Your task to perform on an android device: Open the calendar and show me this week's events? Image 0: 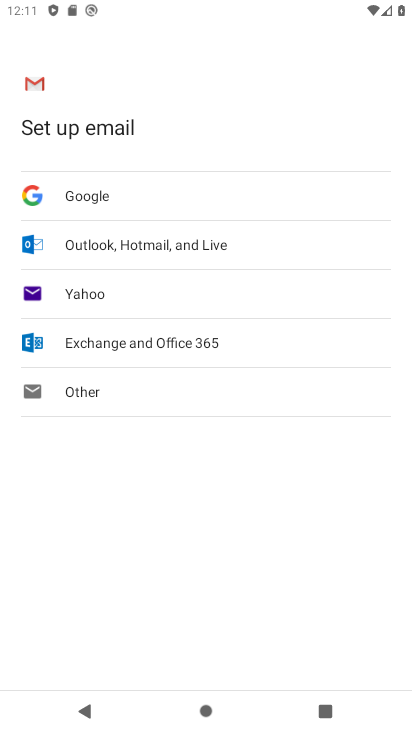
Step 0: press home button
Your task to perform on an android device: Open the calendar and show me this week's events? Image 1: 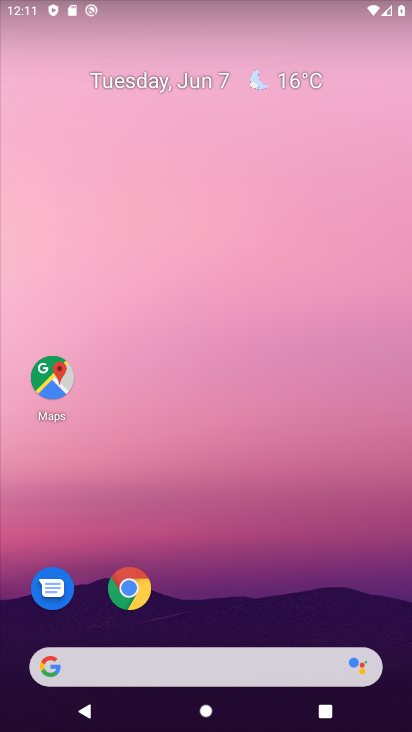
Step 1: drag from (340, 594) to (239, 165)
Your task to perform on an android device: Open the calendar and show me this week's events? Image 2: 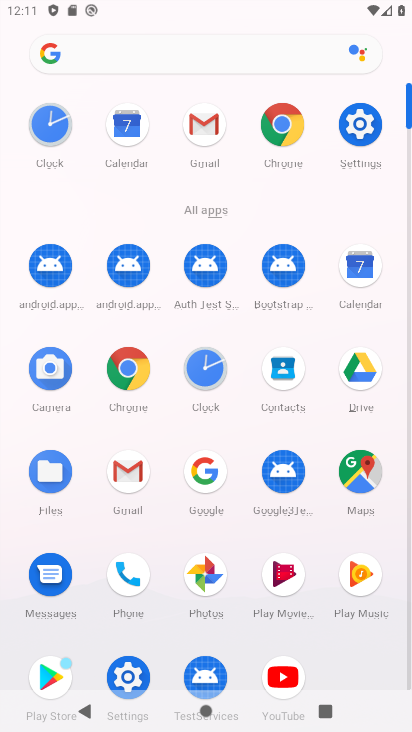
Step 2: click (375, 276)
Your task to perform on an android device: Open the calendar and show me this week's events? Image 3: 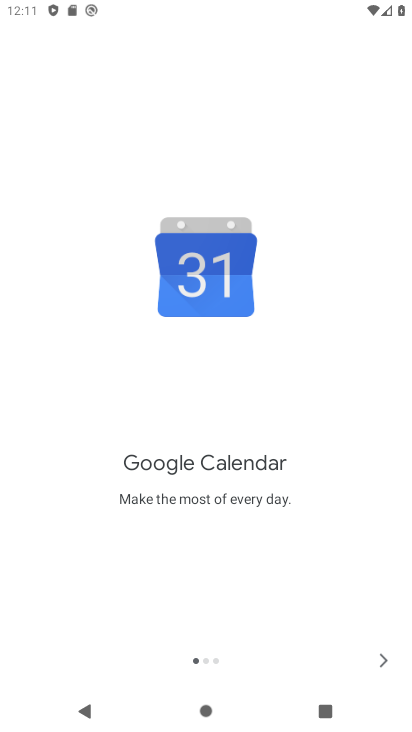
Step 3: task complete